Your task to perform on an android device: see sites visited before in the chrome app Image 0: 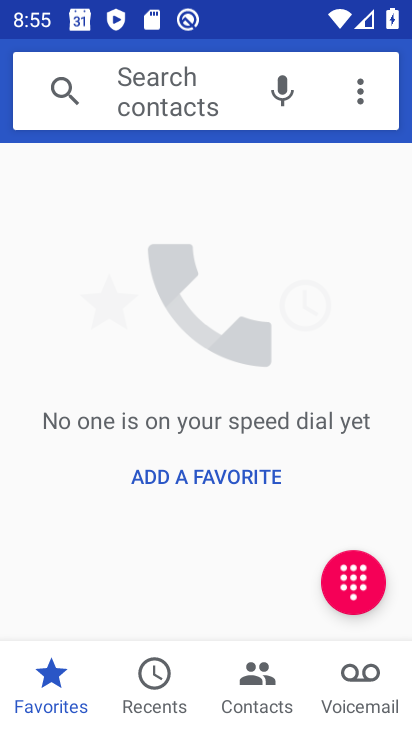
Step 0: press home button
Your task to perform on an android device: see sites visited before in the chrome app Image 1: 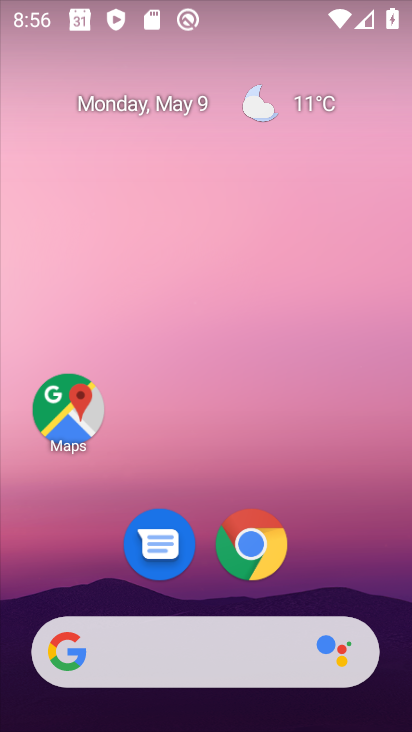
Step 1: click (244, 556)
Your task to perform on an android device: see sites visited before in the chrome app Image 2: 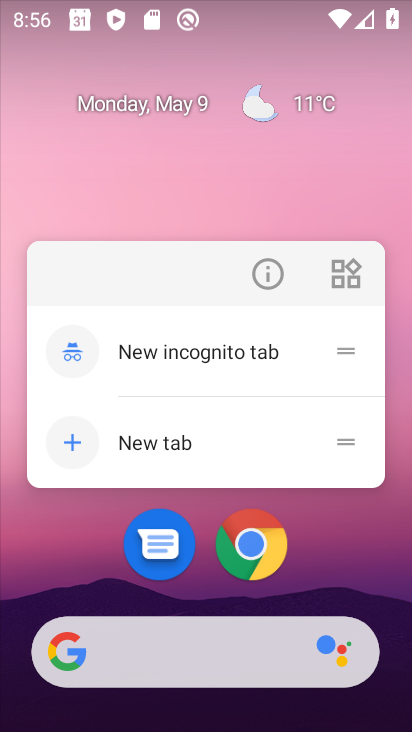
Step 2: click (244, 552)
Your task to perform on an android device: see sites visited before in the chrome app Image 3: 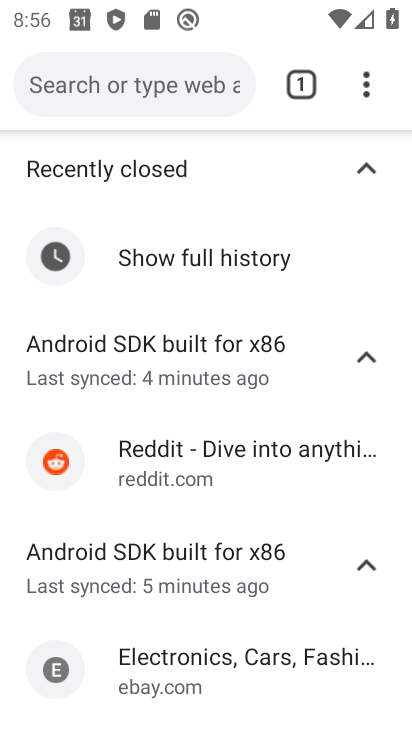
Step 3: click (360, 78)
Your task to perform on an android device: see sites visited before in the chrome app Image 4: 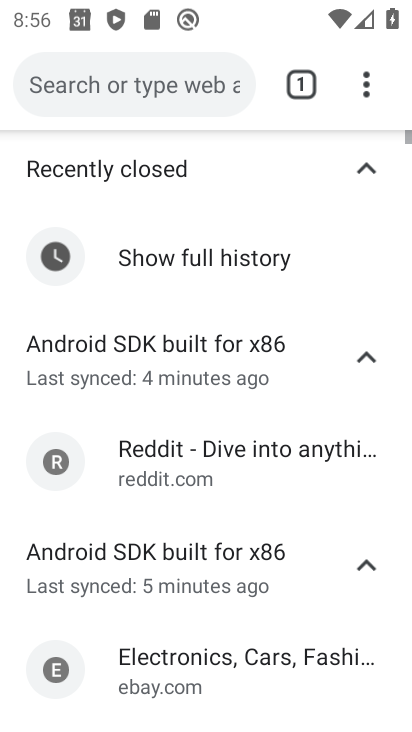
Step 4: click (362, 81)
Your task to perform on an android device: see sites visited before in the chrome app Image 5: 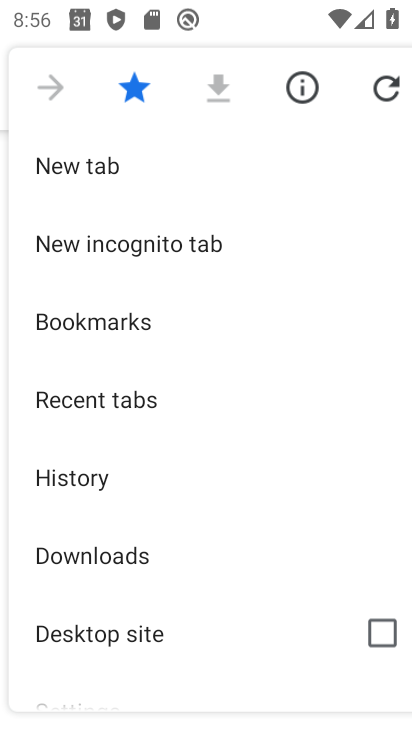
Step 5: drag from (255, 583) to (227, 374)
Your task to perform on an android device: see sites visited before in the chrome app Image 6: 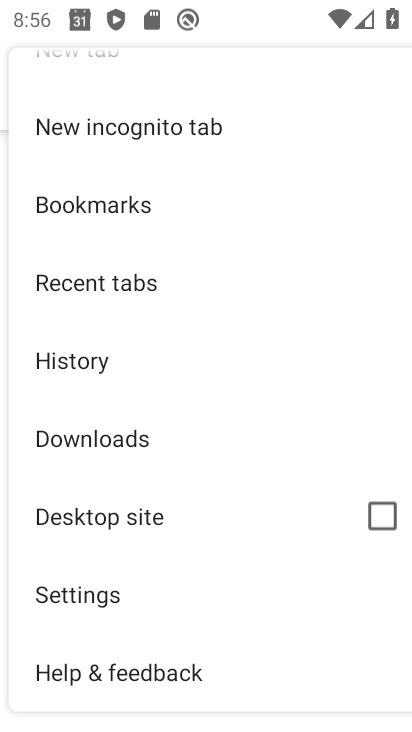
Step 6: click (74, 289)
Your task to perform on an android device: see sites visited before in the chrome app Image 7: 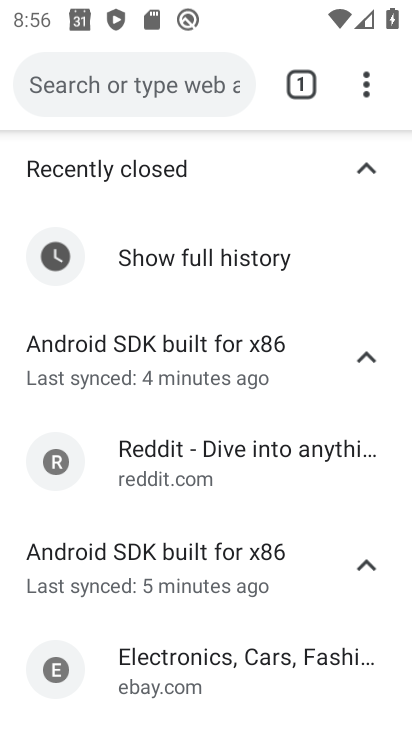
Step 7: task complete